Your task to perform on an android device: Is it going to rain today? Image 0: 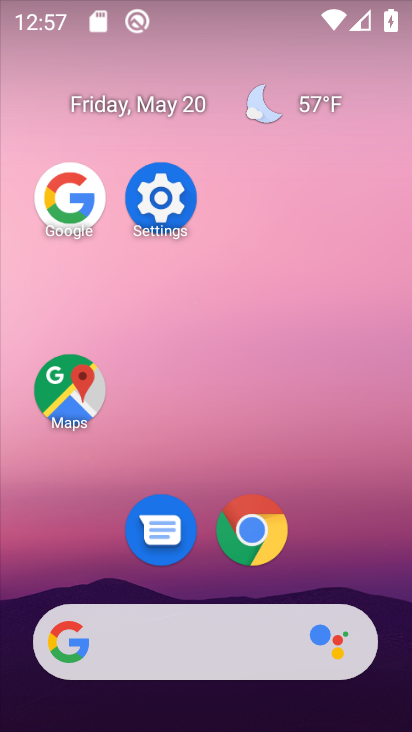
Step 0: click (67, 205)
Your task to perform on an android device: Is it going to rain today? Image 1: 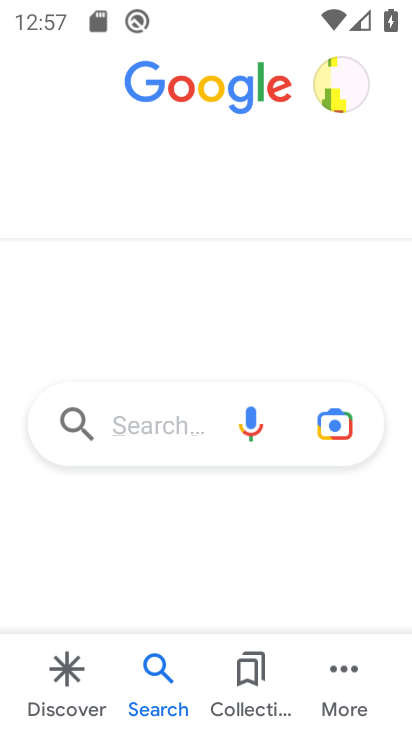
Step 1: click (174, 443)
Your task to perform on an android device: Is it going to rain today? Image 2: 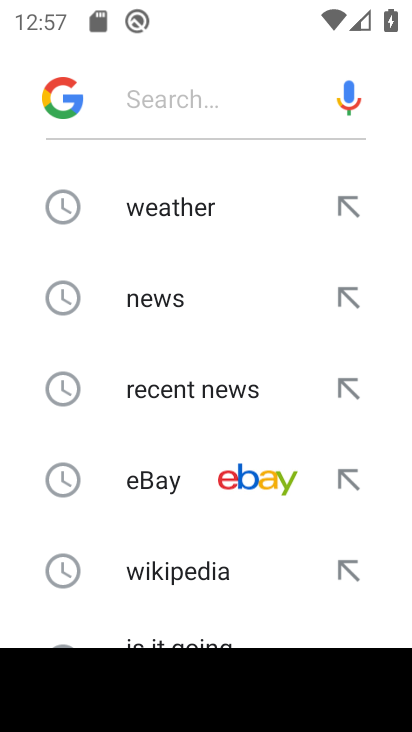
Step 2: click (162, 215)
Your task to perform on an android device: Is it going to rain today? Image 3: 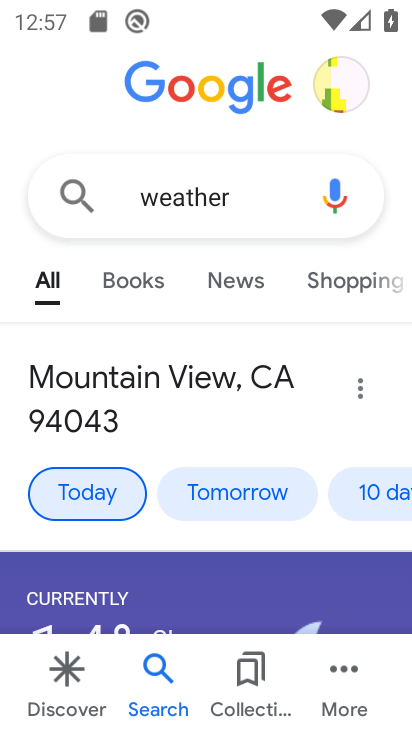
Step 3: task complete